Your task to perform on an android device: When is my next appointment? Image 0: 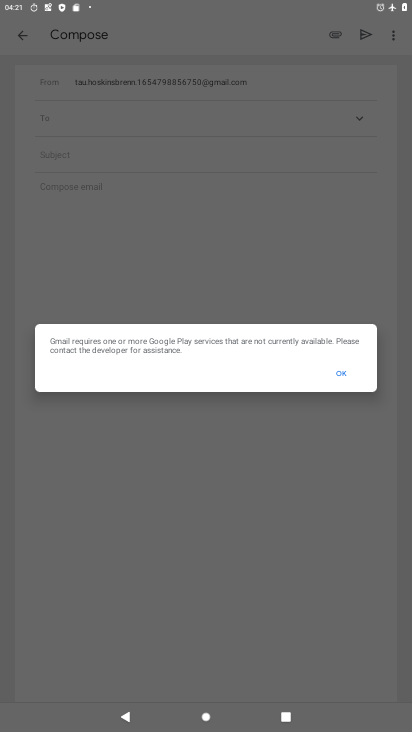
Step 0: press home button
Your task to perform on an android device: When is my next appointment? Image 1: 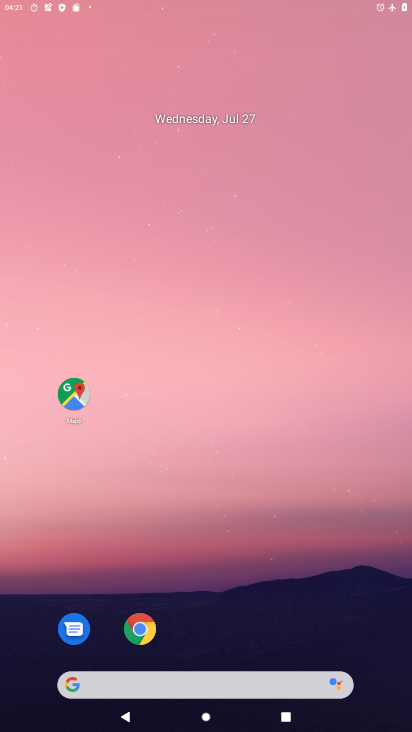
Step 1: drag from (183, 656) to (216, 62)
Your task to perform on an android device: When is my next appointment? Image 2: 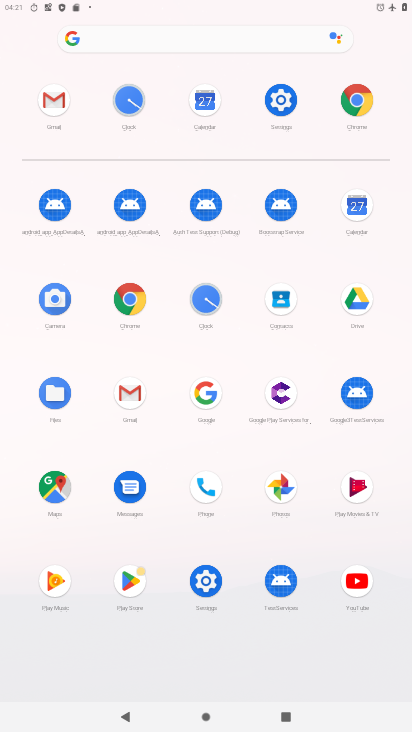
Step 2: click (358, 201)
Your task to perform on an android device: When is my next appointment? Image 3: 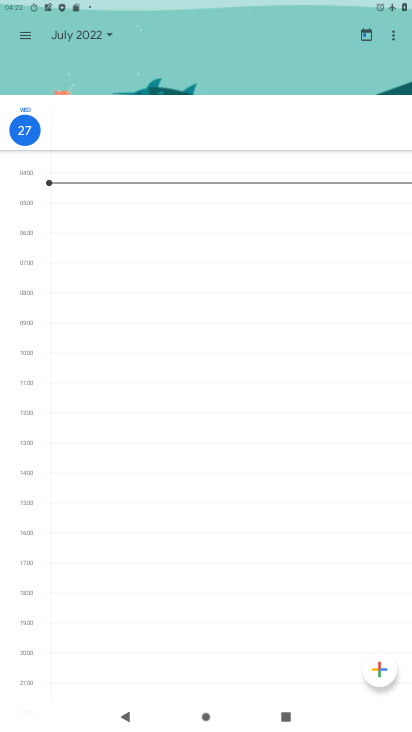
Step 3: click (62, 29)
Your task to perform on an android device: When is my next appointment? Image 4: 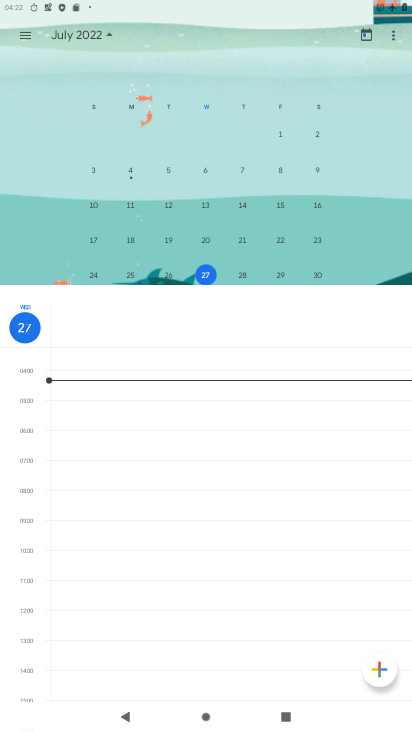
Step 4: click (242, 272)
Your task to perform on an android device: When is my next appointment? Image 5: 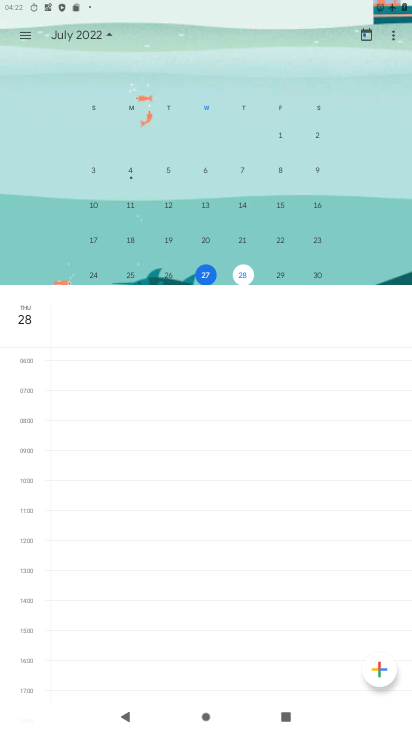
Step 5: click (246, 276)
Your task to perform on an android device: When is my next appointment? Image 6: 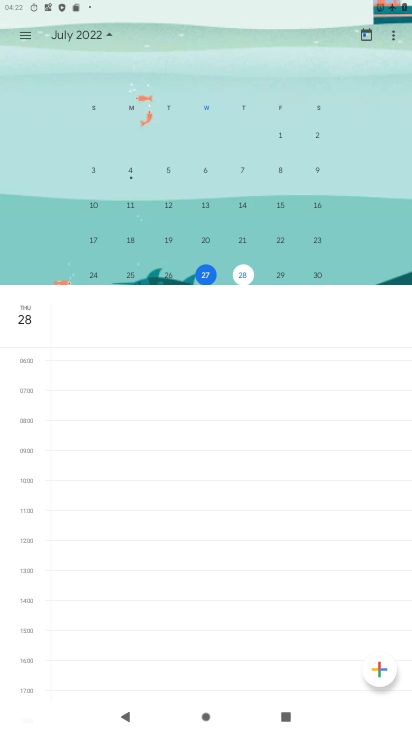
Step 6: task complete